Your task to perform on an android device: What's on my calendar today? Image 0: 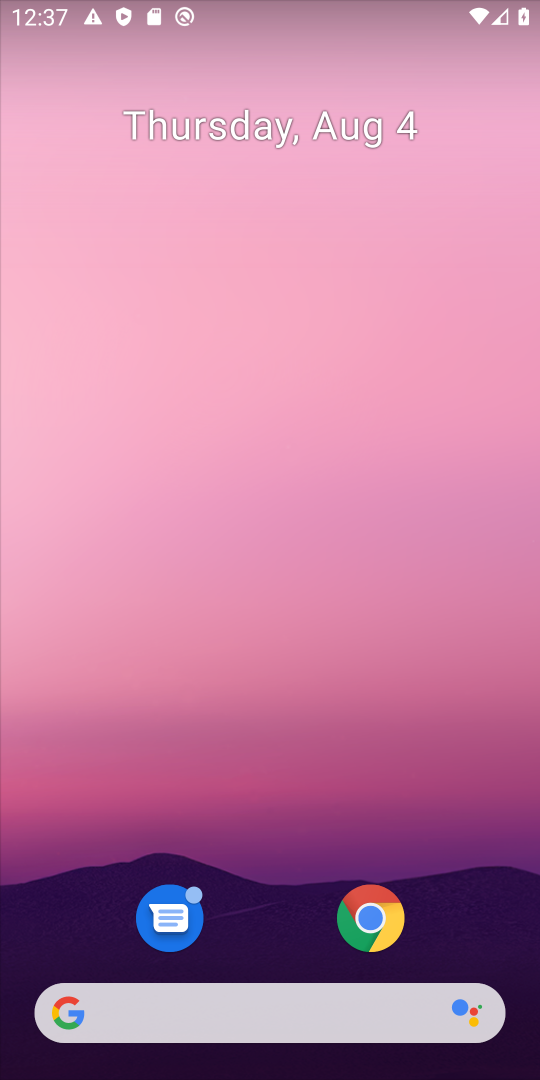
Step 0: drag from (258, 926) to (276, 286)
Your task to perform on an android device: What's on my calendar today? Image 1: 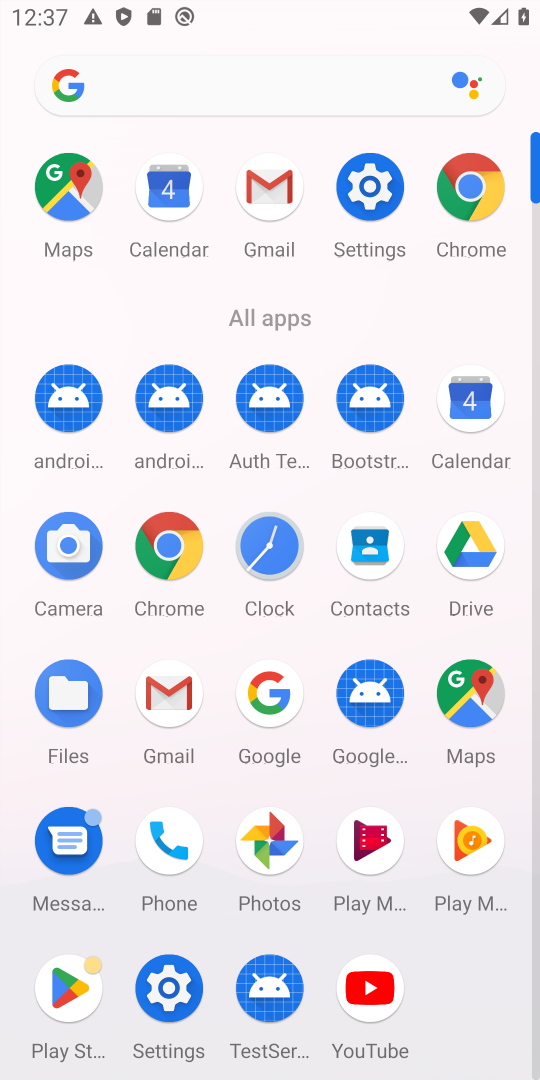
Step 1: click (439, 425)
Your task to perform on an android device: What's on my calendar today? Image 2: 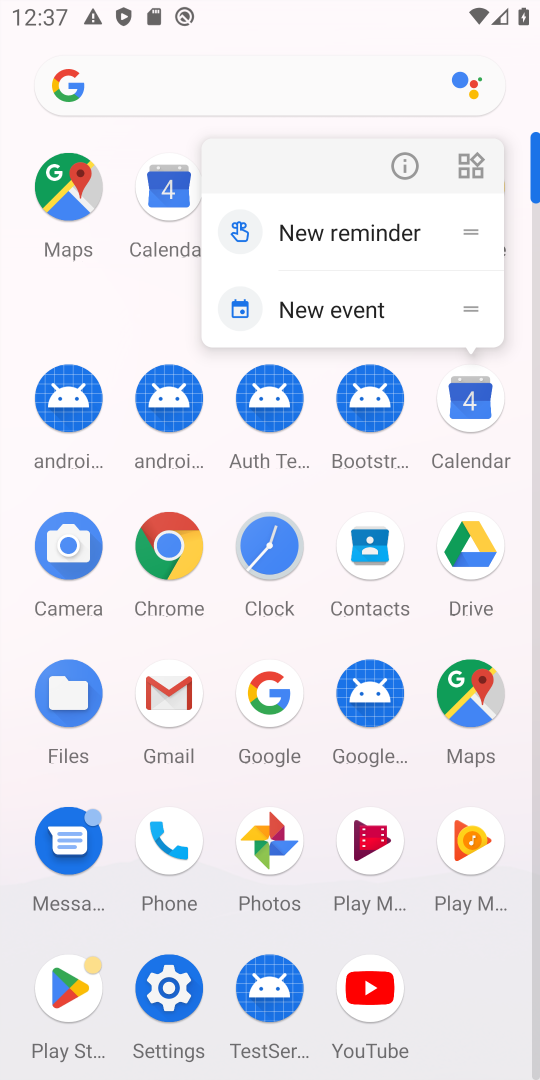
Step 2: click (439, 425)
Your task to perform on an android device: What's on my calendar today? Image 3: 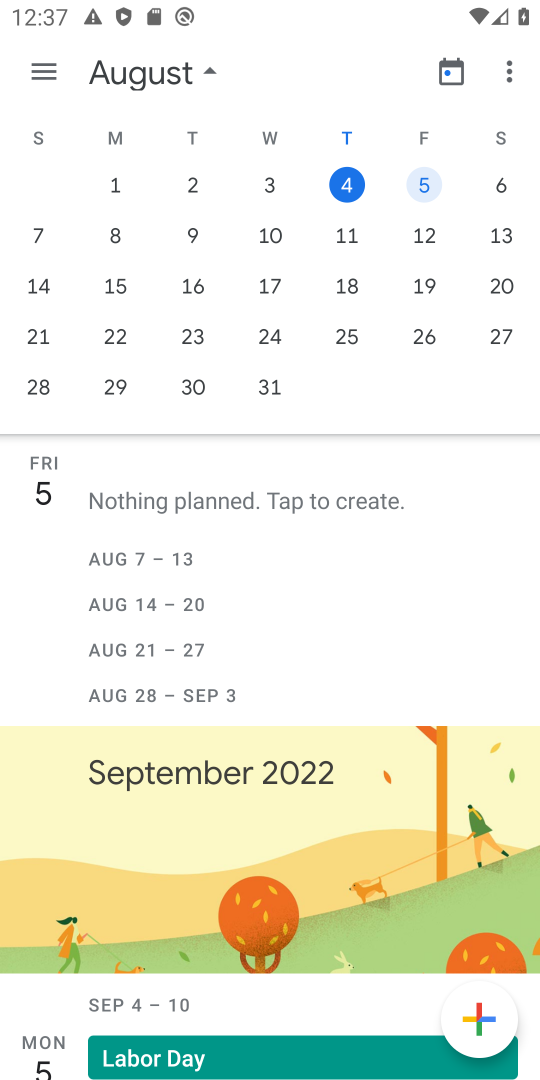
Step 3: click (344, 183)
Your task to perform on an android device: What's on my calendar today? Image 4: 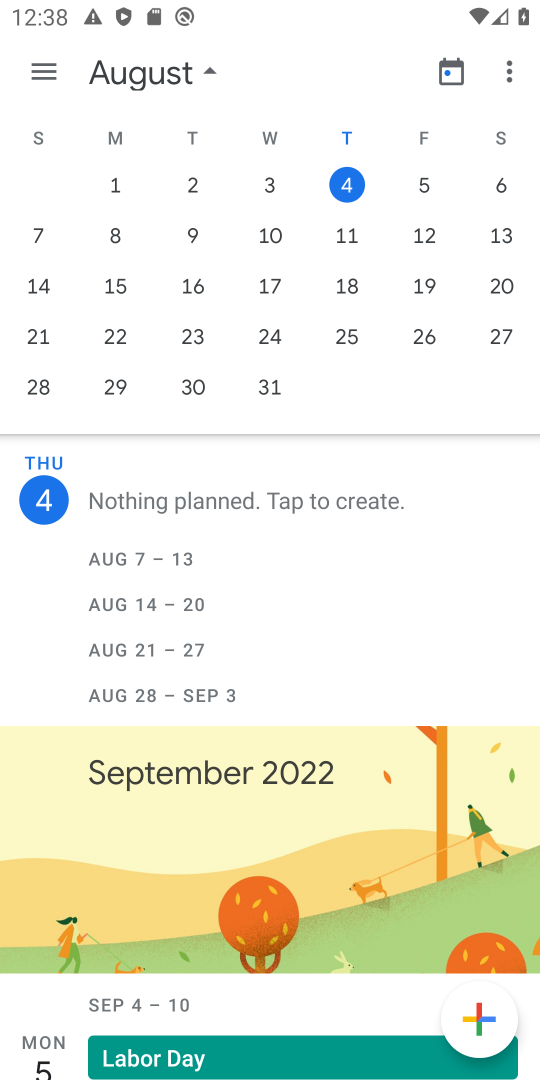
Step 4: click (346, 185)
Your task to perform on an android device: What's on my calendar today? Image 5: 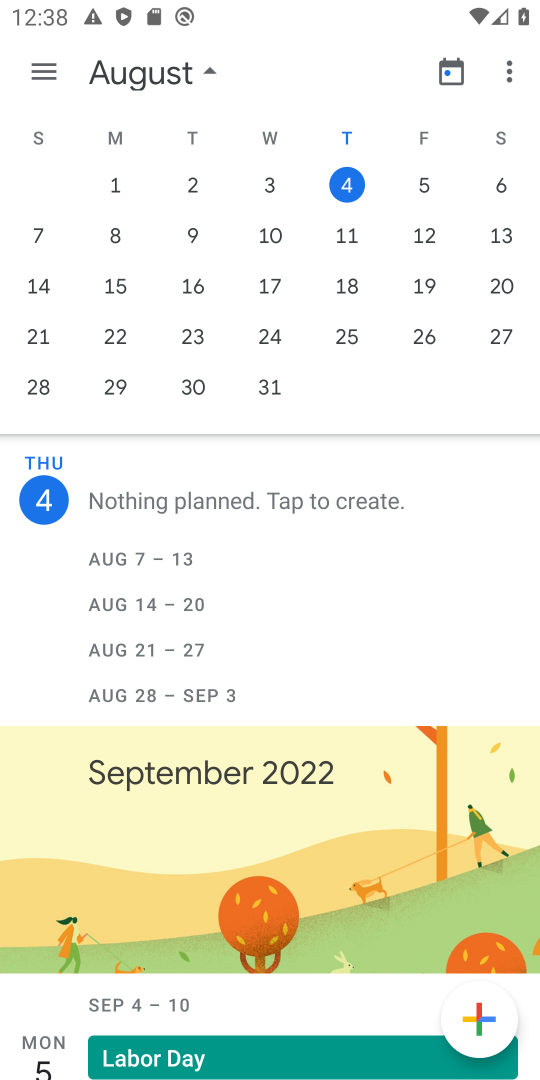
Step 5: task complete